Your task to perform on an android device: turn on improve location accuracy Image 0: 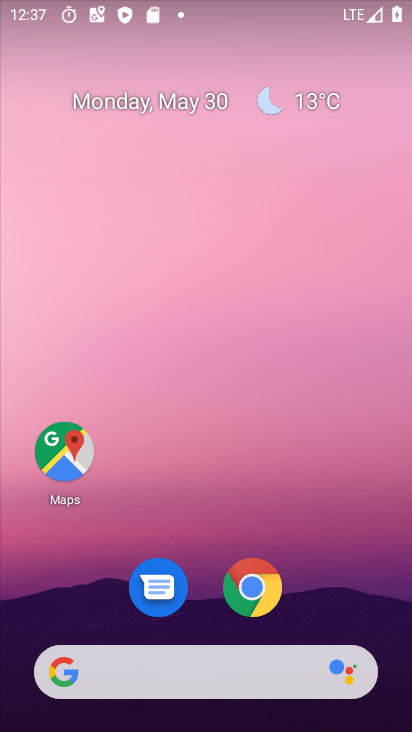
Step 0: drag from (322, 468) to (311, 105)
Your task to perform on an android device: turn on improve location accuracy Image 1: 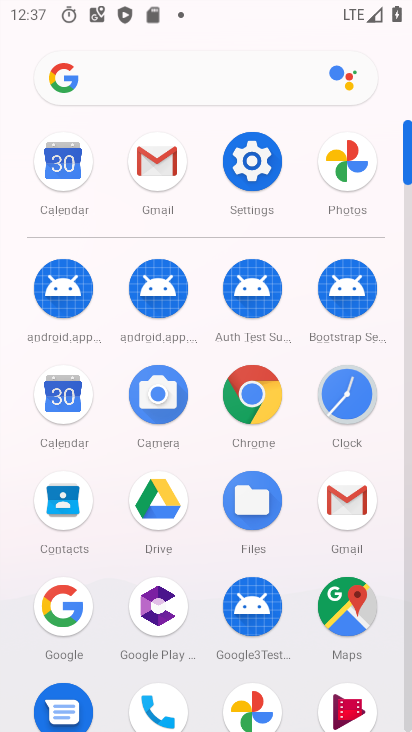
Step 1: click (252, 152)
Your task to perform on an android device: turn on improve location accuracy Image 2: 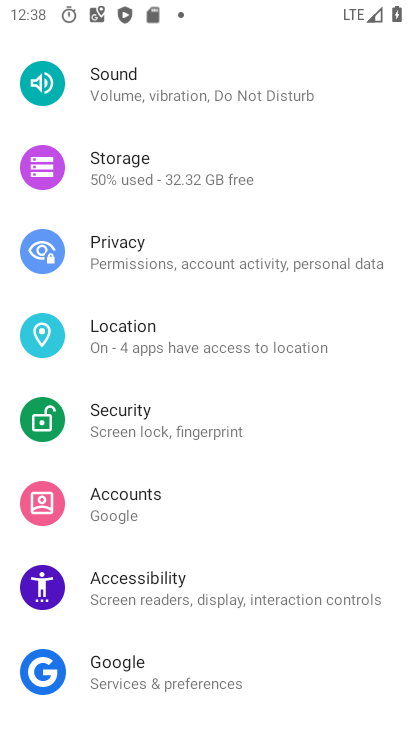
Step 2: drag from (144, 591) to (199, 192)
Your task to perform on an android device: turn on improve location accuracy Image 3: 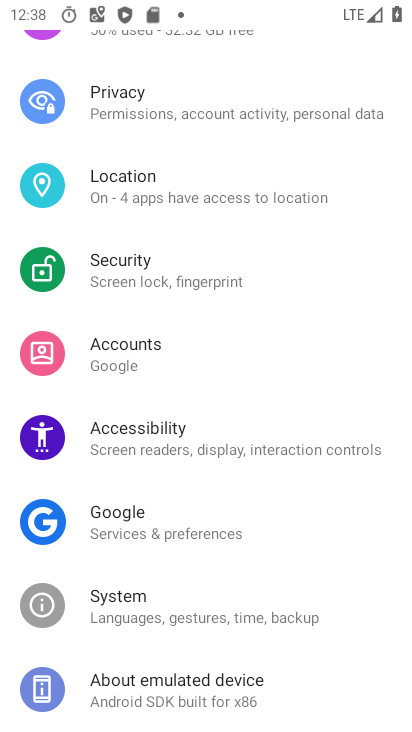
Step 3: drag from (155, 133) to (217, 666)
Your task to perform on an android device: turn on improve location accuracy Image 4: 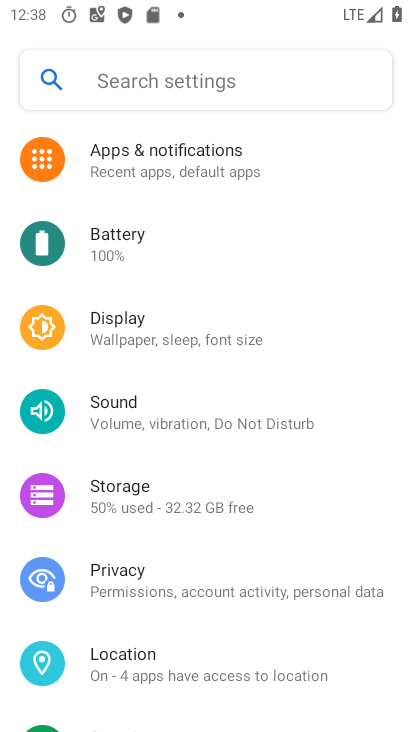
Step 4: drag from (226, 554) to (260, 177)
Your task to perform on an android device: turn on improve location accuracy Image 5: 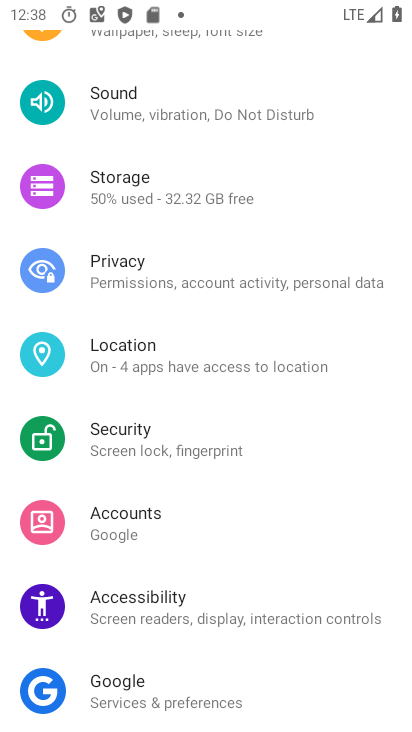
Step 5: click (166, 353)
Your task to perform on an android device: turn on improve location accuracy Image 6: 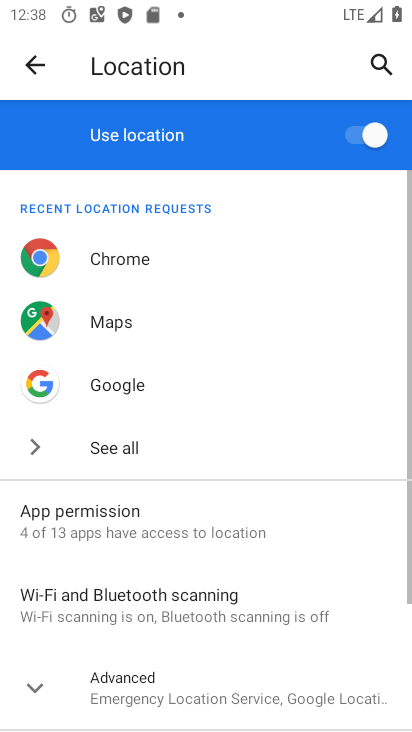
Step 6: click (168, 693)
Your task to perform on an android device: turn on improve location accuracy Image 7: 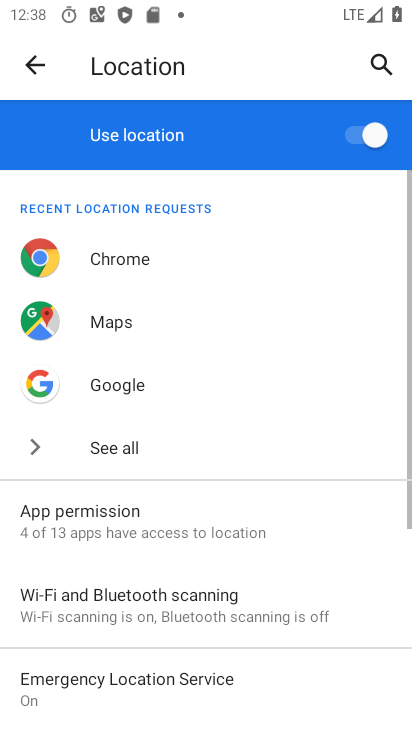
Step 7: drag from (185, 654) to (217, 155)
Your task to perform on an android device: turn on improve location accuracy Image 8: 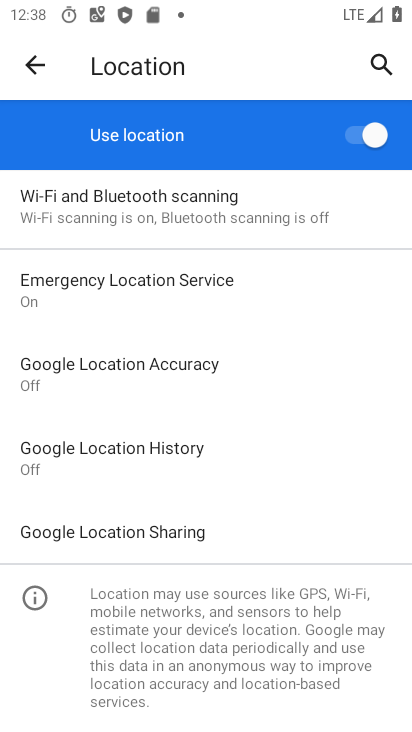
Step 8: click (170, 369)
Your task to perform on an android device: turn on improve location accuracy Image 9: 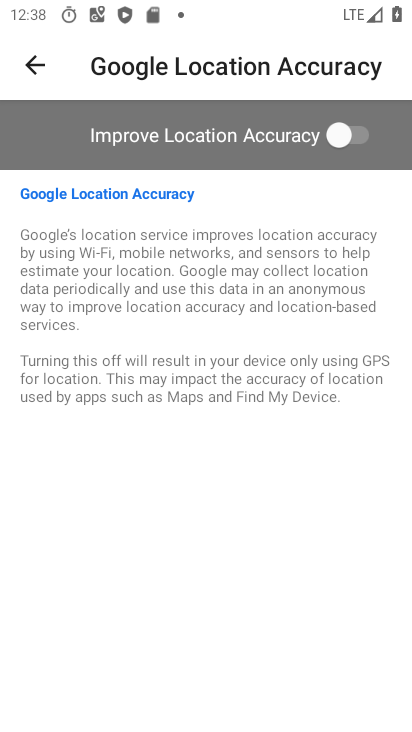
Step 9: click (330, 121)
Your task to perform on an android device: turn on improve location accuracy Image 10: 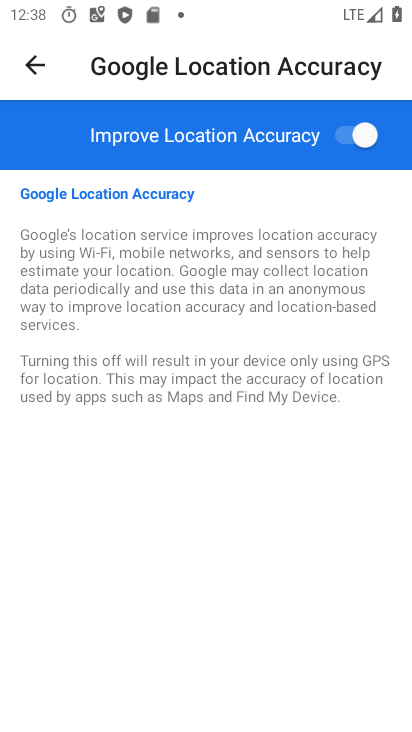
Step 10: task complete